Your task to perform on an android device: change keyboard looks Image 0: 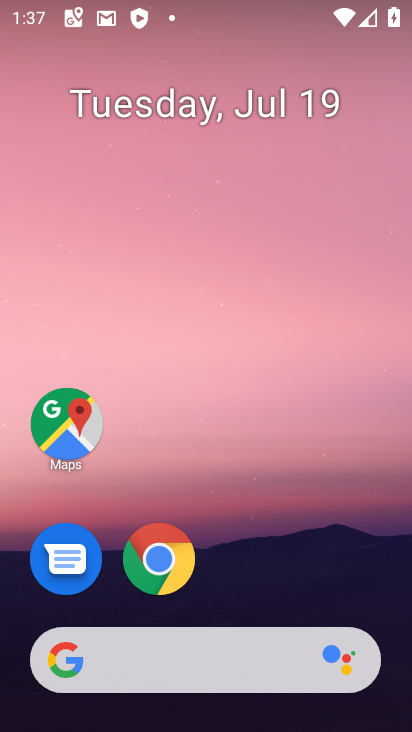
Step 0: drag from (211, 622) to (215, 48)
Your task to perform on an android device: change keyboard looks Image 1: 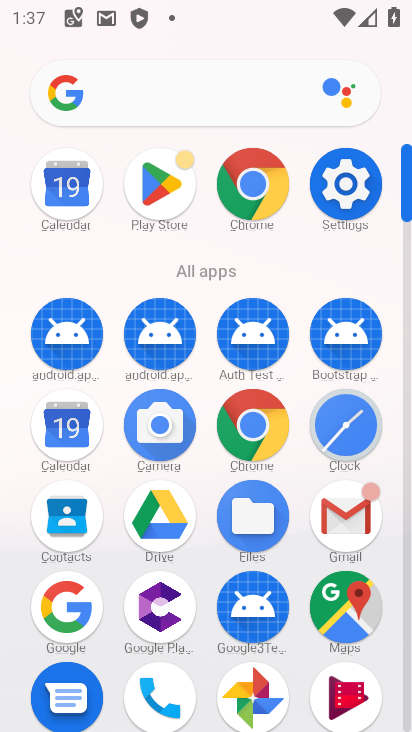
Step 1: click (344, 190)
Your task to perform on an android device: change keyboard looks Image 2: 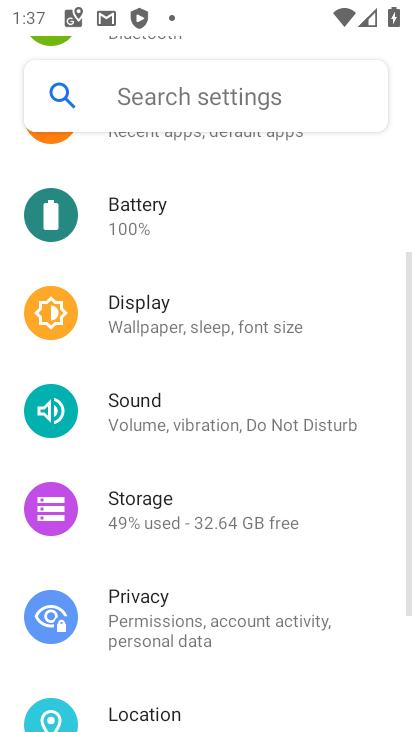
Step 2: drag from (221, 677) to (205, 241)
Your task to perform on an android device: change keyboard looks Image 3: 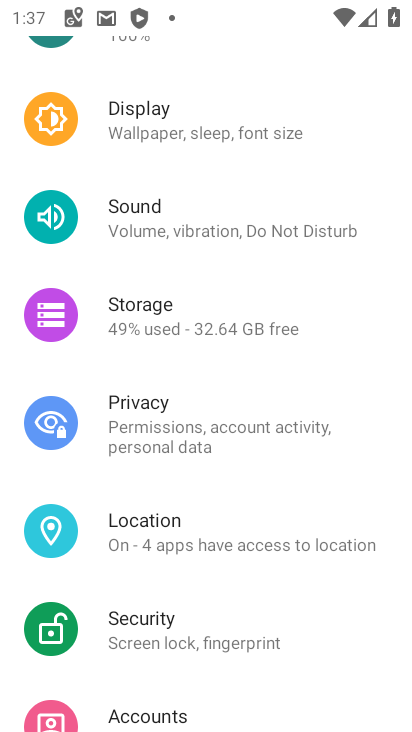
Step 3: drag from (125, 663) to (126, 227)
Your task to perform on an android device: change keyboard looks Image 4: 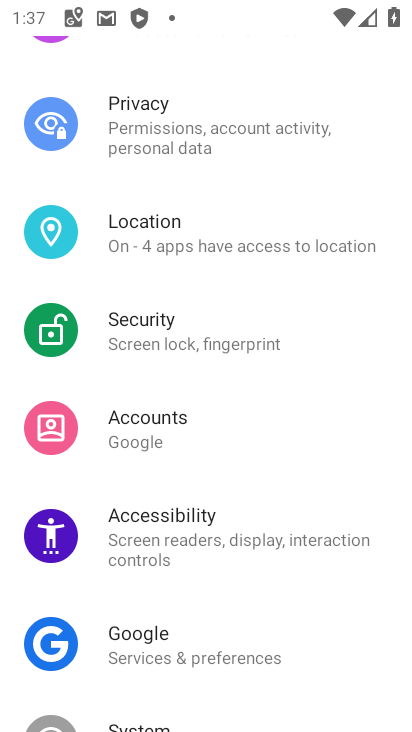
Step 4: drag from (113, 698) to (114, 346)
Your task to perform on an android device: change keyboard looks Image 5: 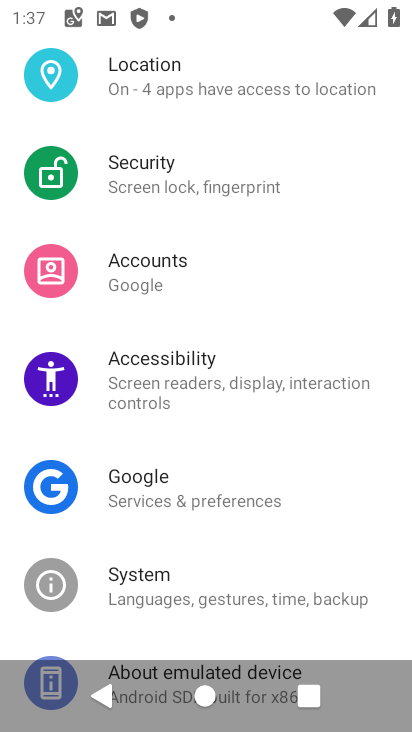
Step 5: click (136, 589)
Your task to perform on an android device: change keyboard looks Image 6: 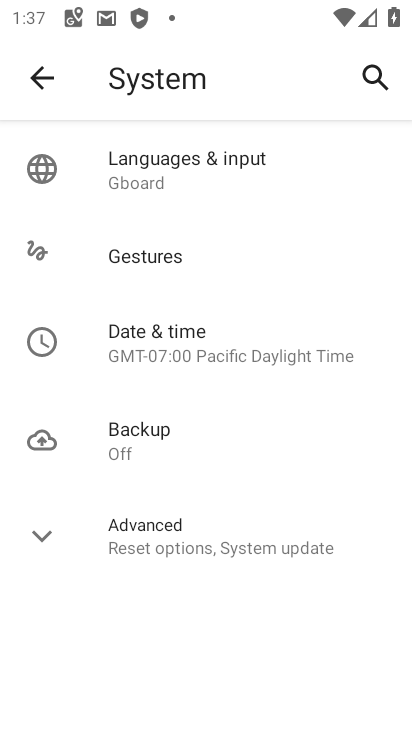
Step 6: click (154, 181)
Your task to perform on an android device: change keyboard looks Image 7: 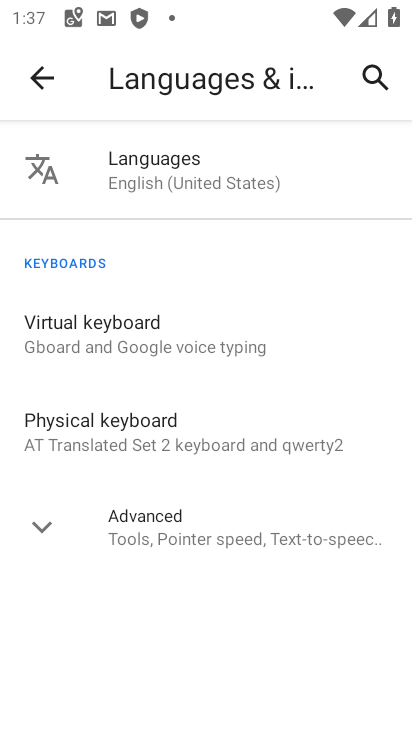
Step 7: click (120, 313)
Your task to perform on an android device: change keyboard looks Image 8: 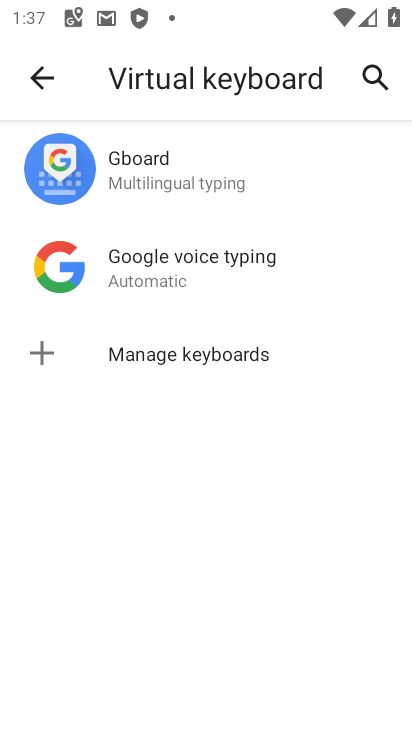
Step 8: click (156, 180)
Your task to perform on an android device: change keyboard looks Image 9: 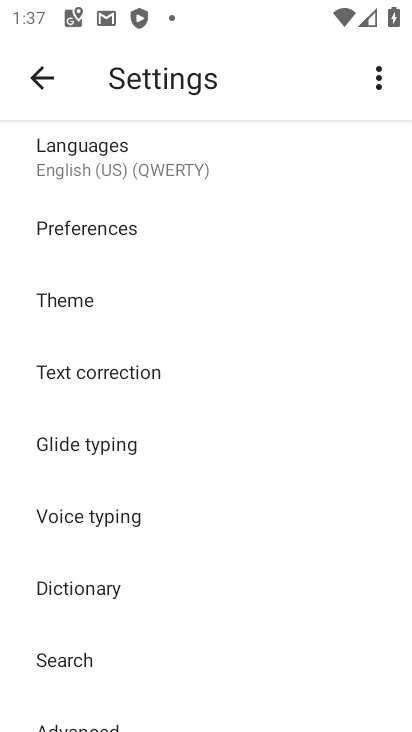
Step 9: click (48, 303)
Your task to perform on an android device: change keyboard looks Image 10: 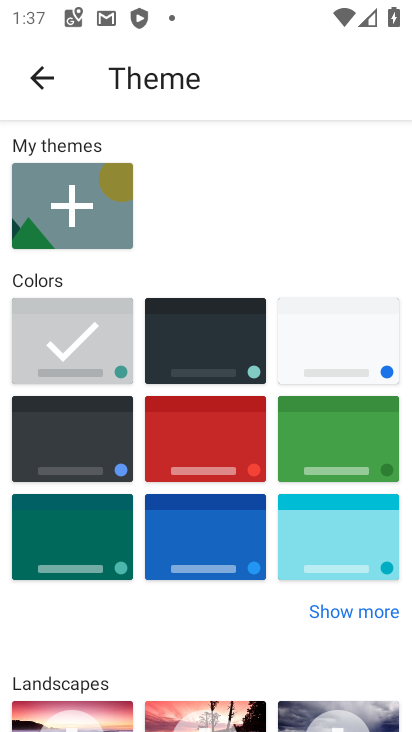
Step 10: click (193, 460)
Your task to perform on an android device: change keyboard looks Image 11: 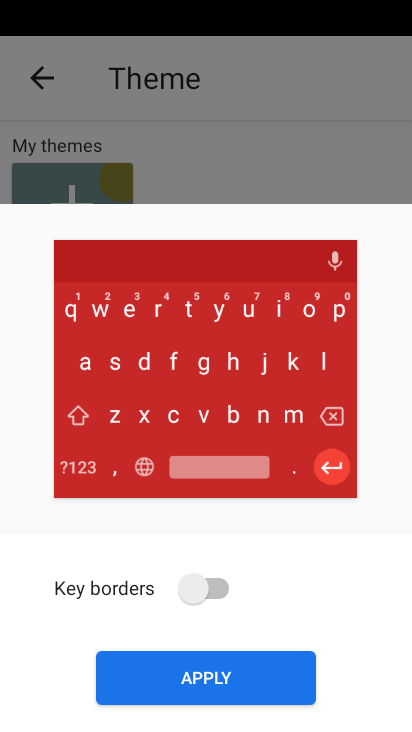
Step 11: click (209, 688)
Your task to perform on an android device: change keyboard looks Image 12: 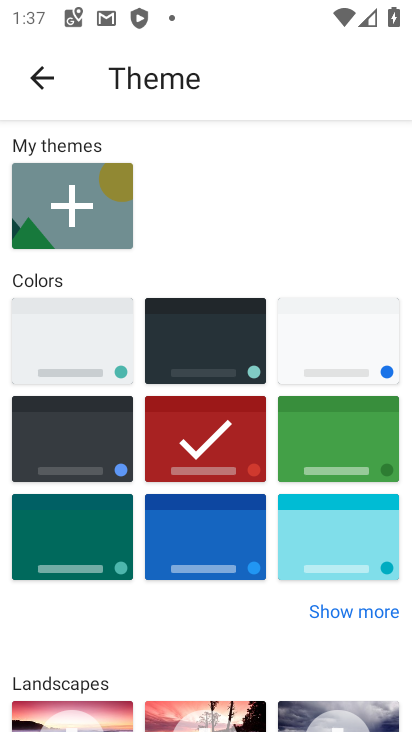
Step 12: task complete